Your task to perform on an android device: Search for vegetarian restaurants on Maps Image 0: 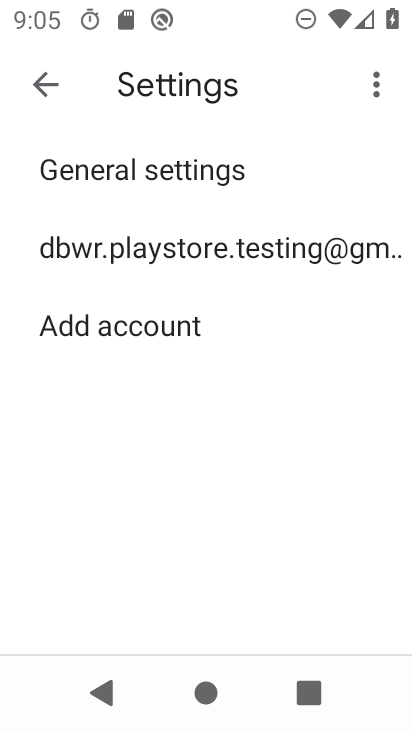
Step 0: press home button
Your task to perform on an android device: Search for vegetarian restaurants on Maps Image 1: 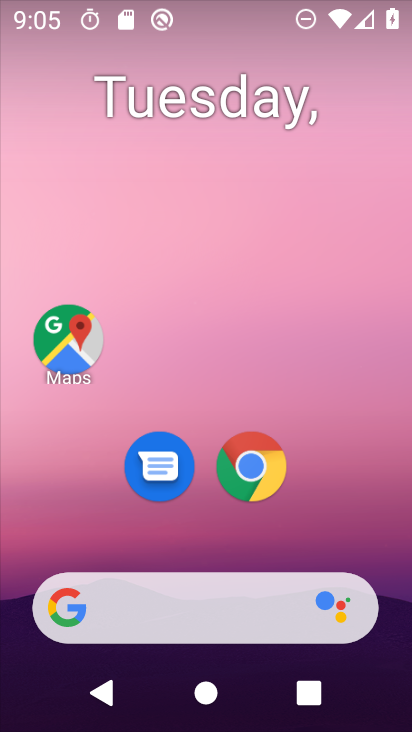
Step 1: click (81, 342)
Your task to perform on an android device: Search for vegetarian restaurants on Maps Image 2: 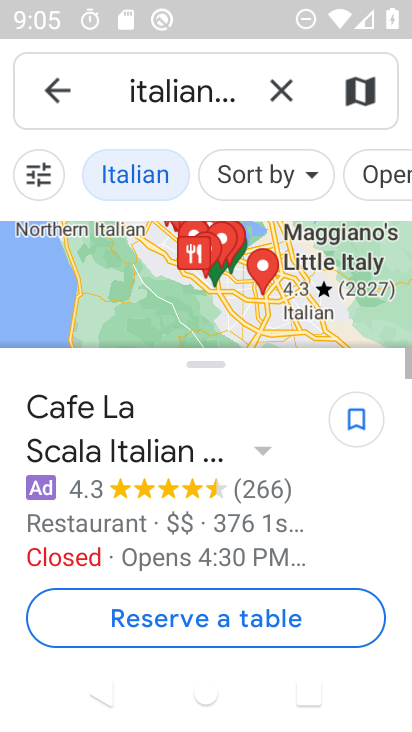
Step 2: click (276, 82)
Your task to perform on an android device: Search for vegetarian restaurants on Maps Image 3: 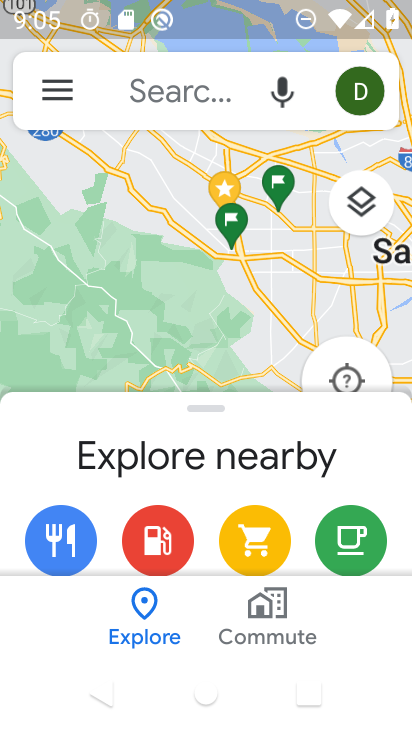
Step 3: click (166, 92)
Your task to perform on an android device: Search for vegetarian restaurants on Maps Image 4: 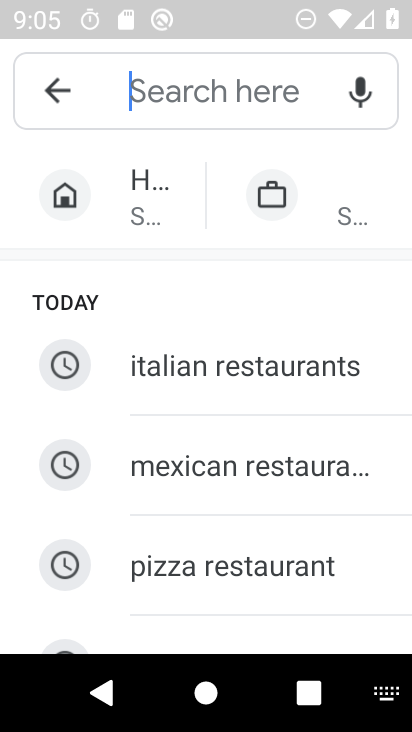
Step 4: type "Vegetarian restaurants"
Your task to perform on an android device: Search for vegetarian restaurants on Maps Image 5: 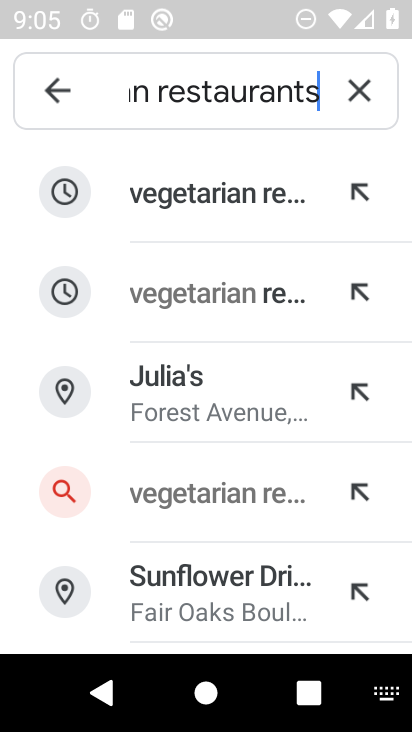
Step 5: click (220, 191)
Your task to perform on an android device: Search for vegetarian restaurants on Maps Image 6: 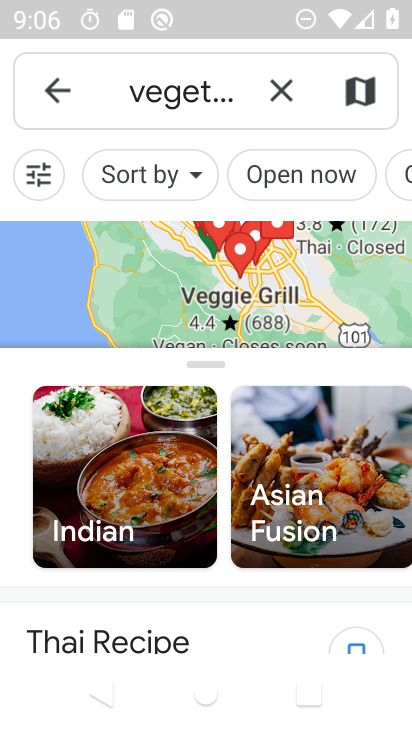
Step 6: task complete